Your task to perform on an android device: turn on notifications settings in the gmail app Image 0: 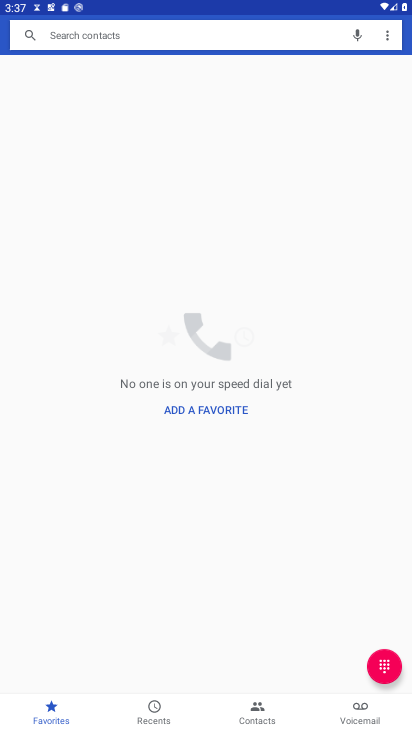
Step 0: press home button
Your task to perform on an android device: turn on notifications settings in the gmail app Image 1: 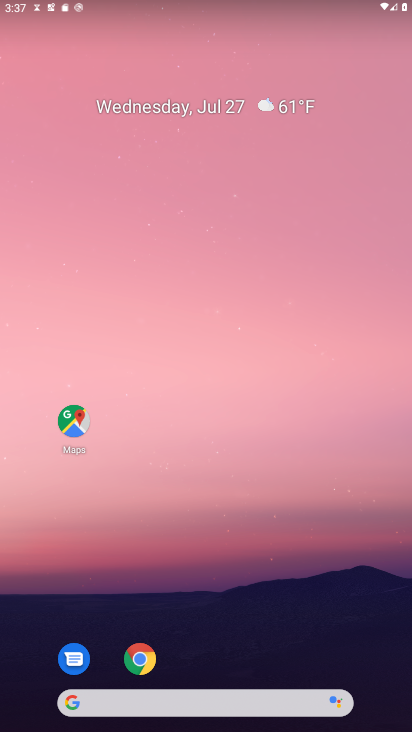
Step 1: drag from (147, 721) to (67, 115)
Your task to perform on an android device: turn on notifications settings in the gmail app Image 2: 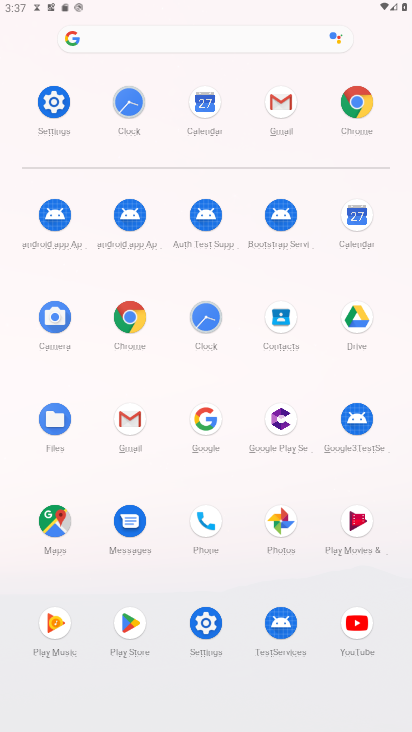
Step 2: click (133, 427)
Your task to perform on an android device: turn on notifications settings in the gmail app Image 3: 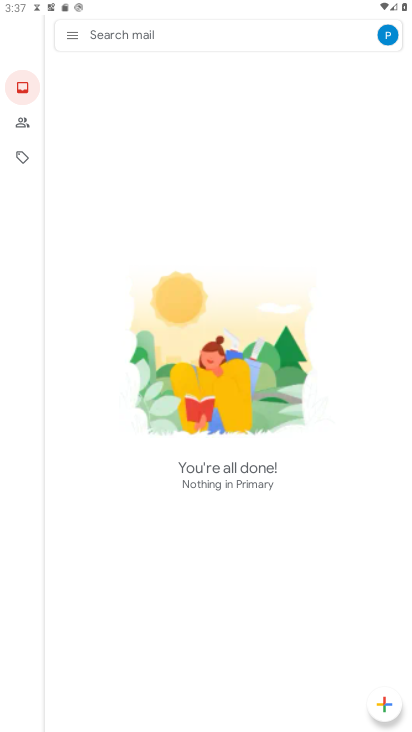
Step 3: click (83, 31)
Your task to perform on an android device: turn on notifications settings in the gmail app Image 4: 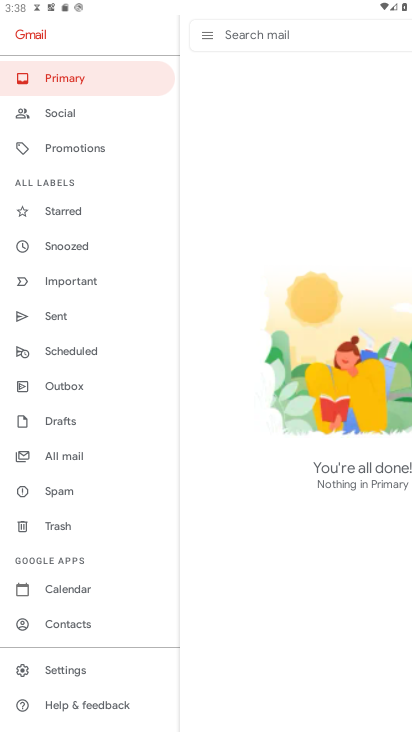
Step 4: click (65, 664)
Your task to perform on an android device: turn on notifications settings in the gmail app Image 5: 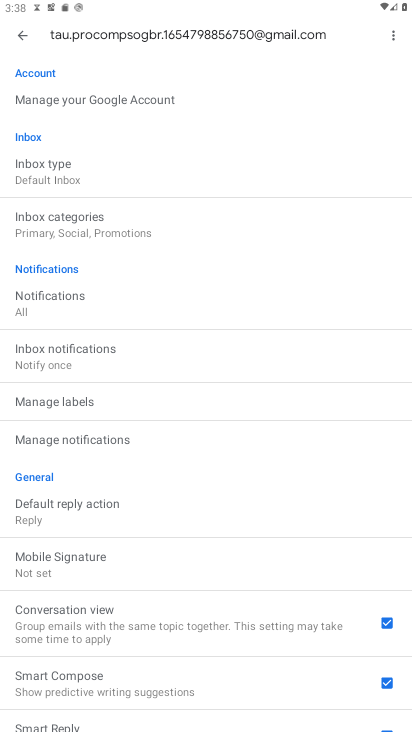
Step 5: click (85, 426)
Your task to perform on an android device: turn on notifications settings in the gmail app Image 6: 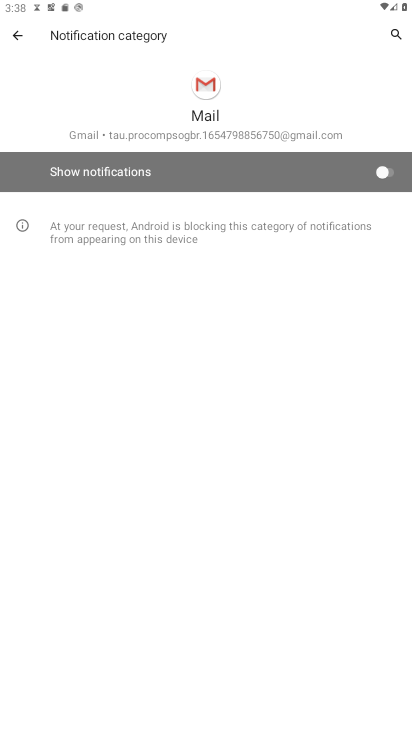
Step 6: click (389, 174)
Your task to perform on an android device: turn on notifications settings in the gmail app Image 7: 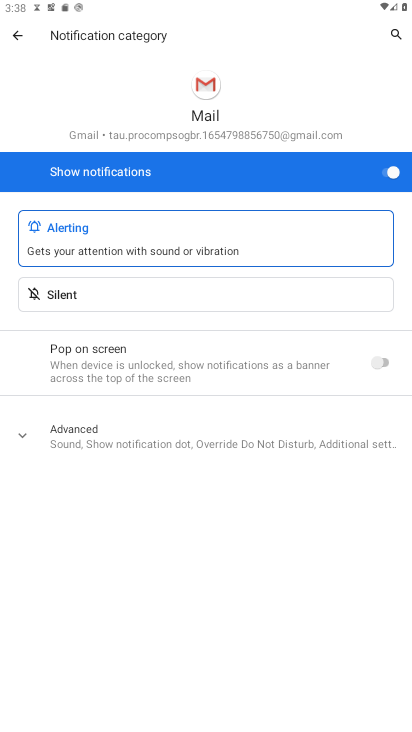
Step 7: task complete